Your task to perform on an android device: Find coffee shops on Maps Image 0: 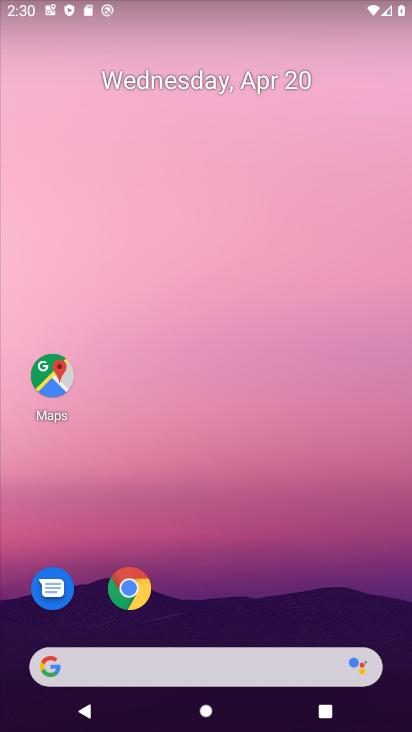
Step 0: drag from (345, 589) to (352, 145)
Your task to perform on an android device: Find coffee shops on Maps Image 1: 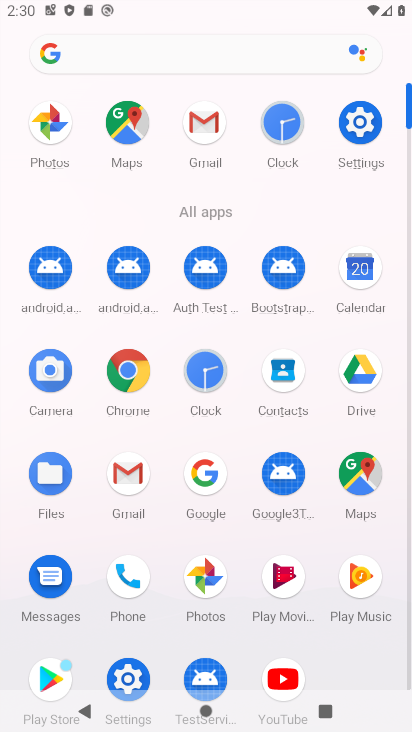
Step 1: click (364, 474)
Your task to perform on an android device: Find coffee shops on Maps Image 2: 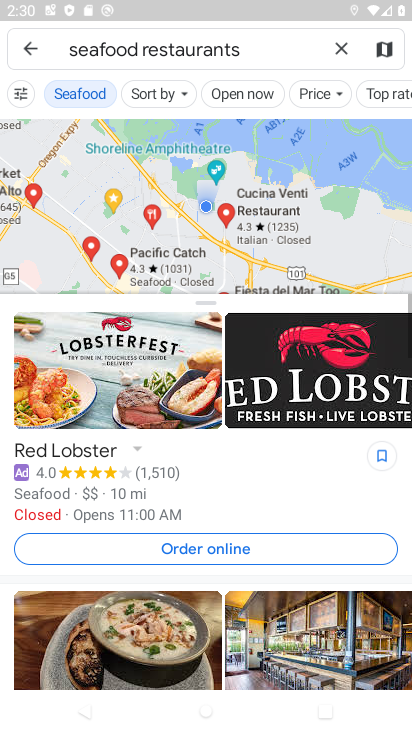
Step 2: click (254, 46)
Your task to perform on an android device: Find coffee shops on Maps Image 3: 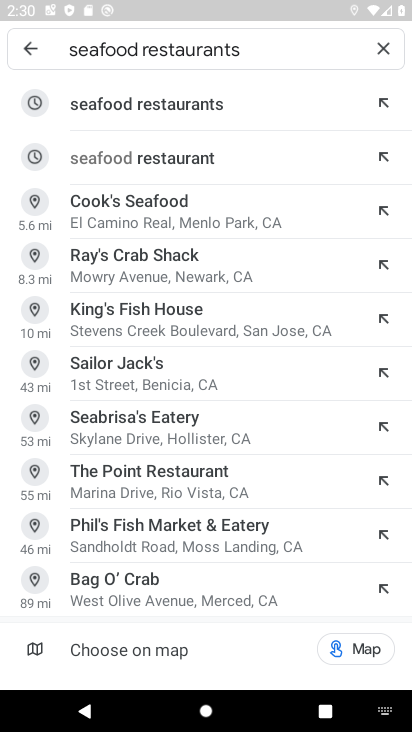
Step 3: click (381, 52)
Your task to perform on an android device: Find coffee shops on Maps Image 4: 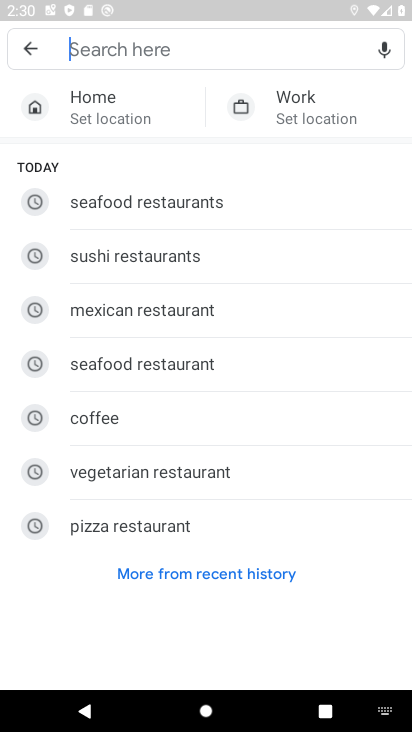
Step 4: type "coffee"
Your task to perform on an android device: Find coffee shops on Maps Image 5: 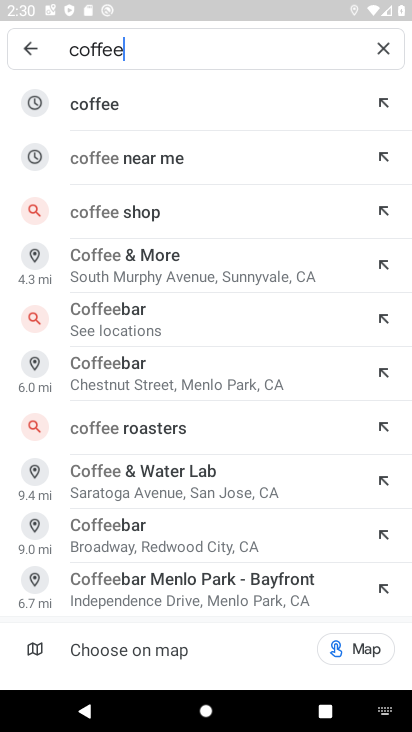
Step 5: click (163, 106)
Your task to perform on an android device: Find coffee shops on Maps Image 6: 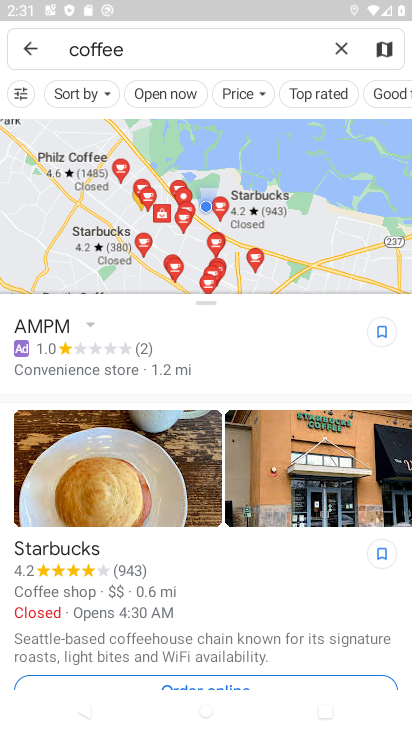
Step 6: task complete